Your task to perform on an android device: add a contact Image 0: 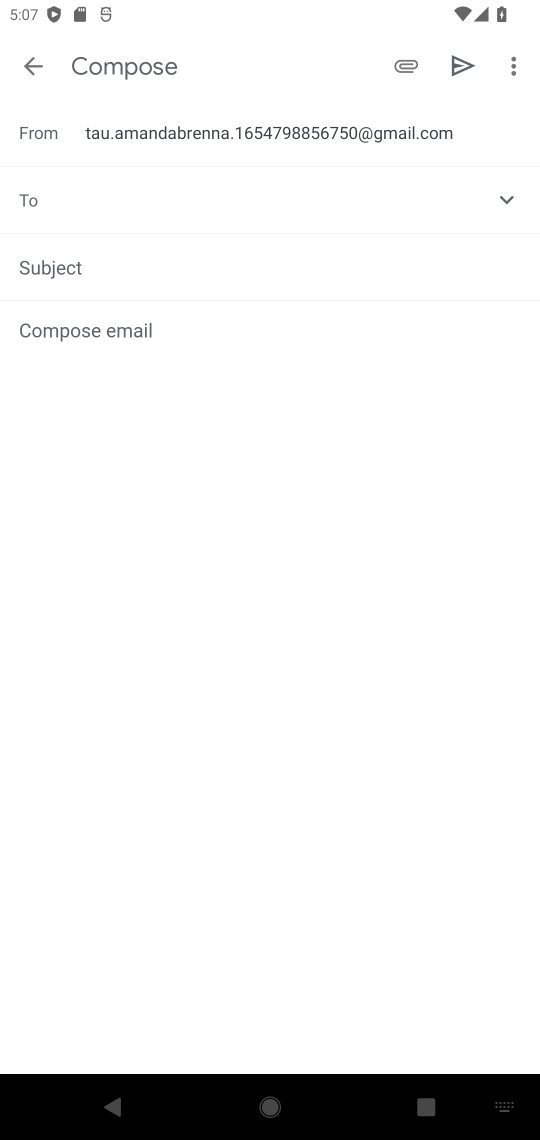
Step 0: click (56, 68)
Your task to perform on an android device: add a contact Image 1: 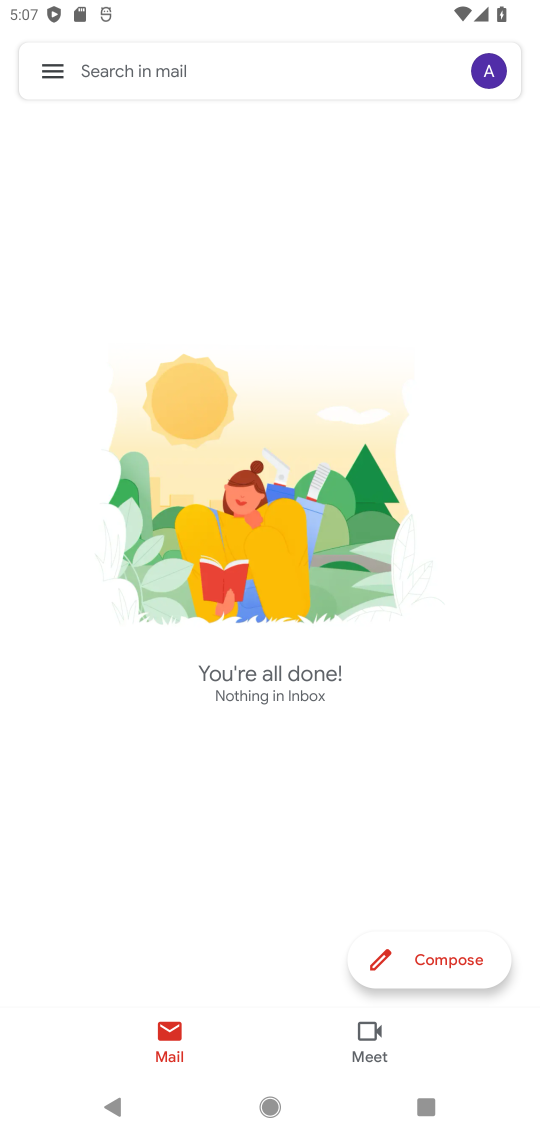
Step 1: press back button
Your task to perform on an android device: add a contact Image 2: 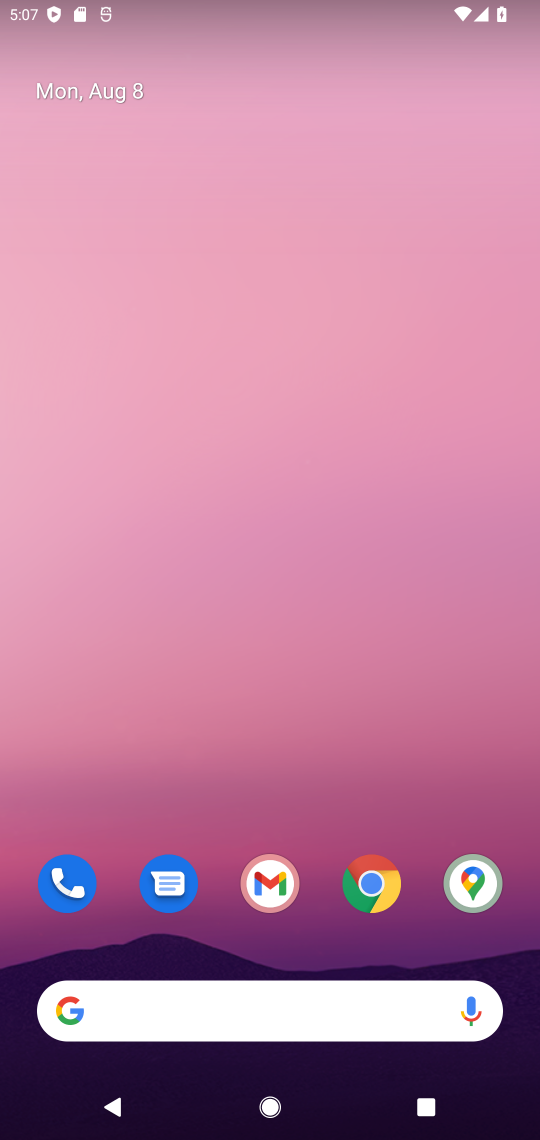
Step 2: drag from (342, 1001) to (164, 17)
Your task to perform on an android device: add a contact Image 3: 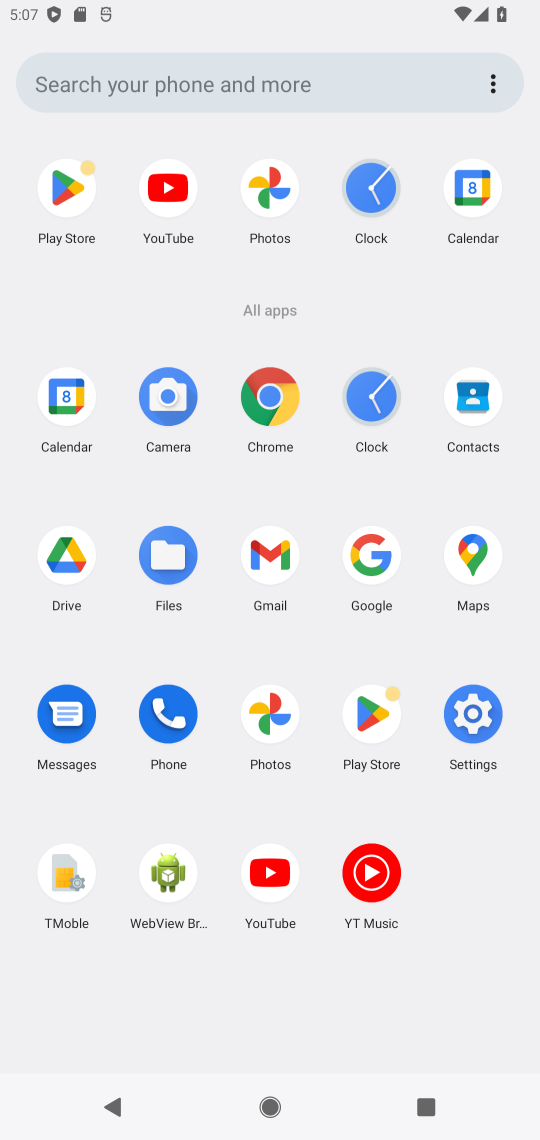
Step 3: drag from (278, 141) to (316, 271)
Your task to perform on an android device: add a contact Image 4: 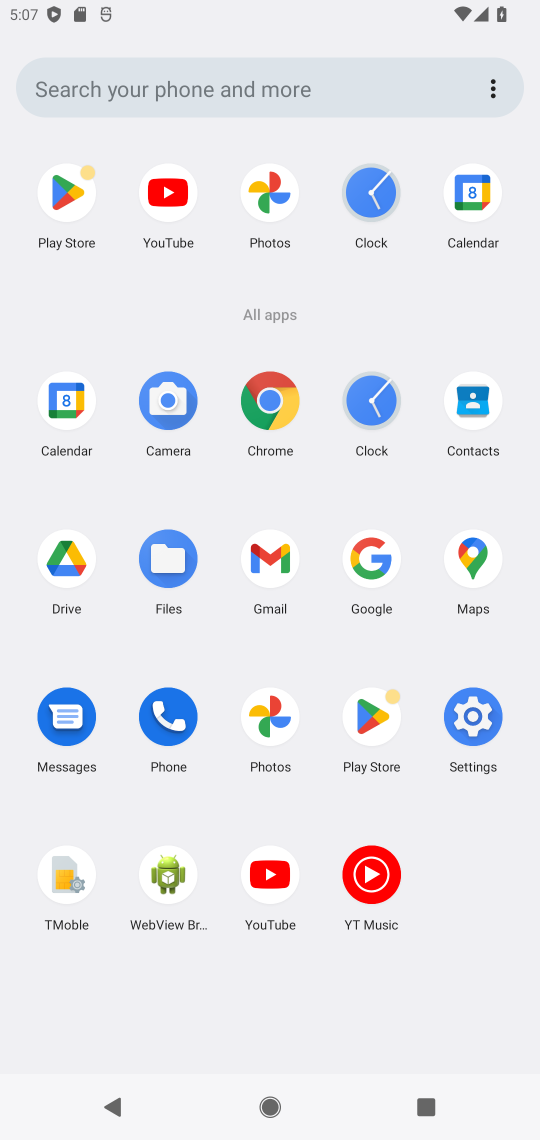
Step 4: click (76, 400)
Your task to perform on an android device: add a contact Image 5: 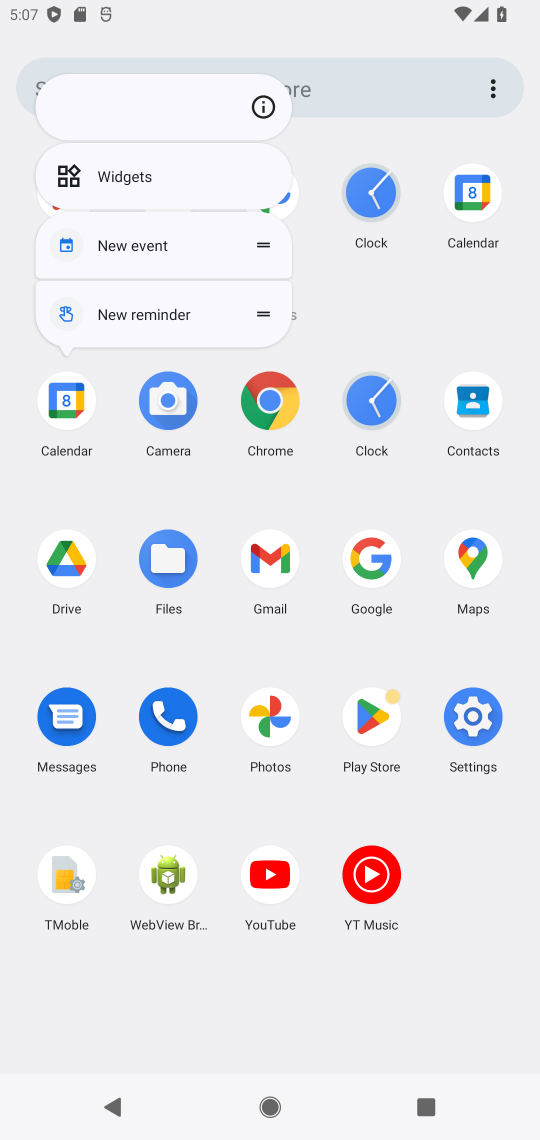
Step 5: click (191, 444)
Your task to perform on an android device: add a contact Image 6: 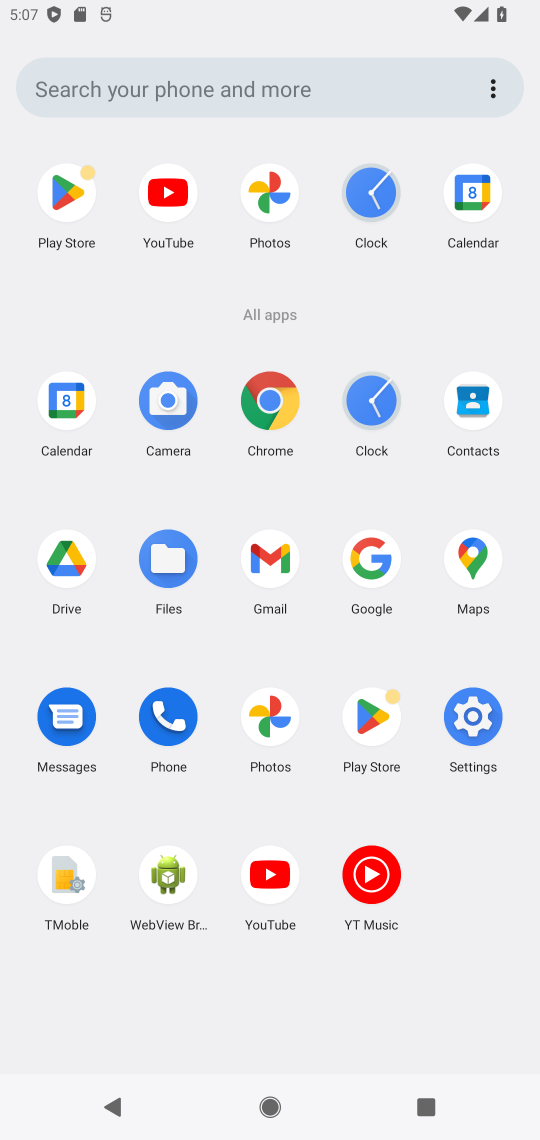
Step 6: click (481, 389)
Your task to perform on an android device: add a contact Image 7: 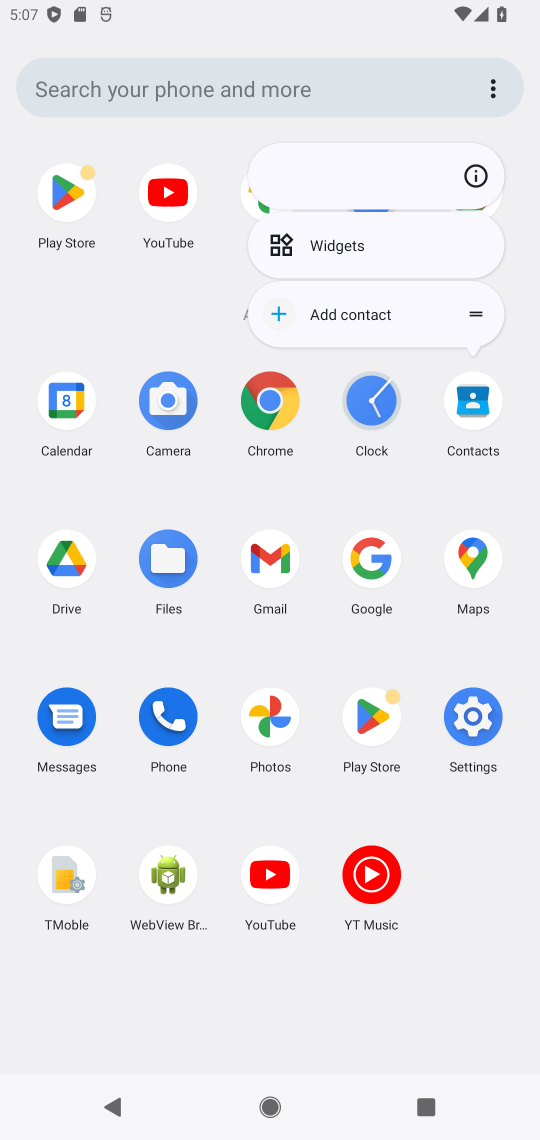
Step 7: click (458, 406)
Your task to perform on an android device: add a contact Image 8: 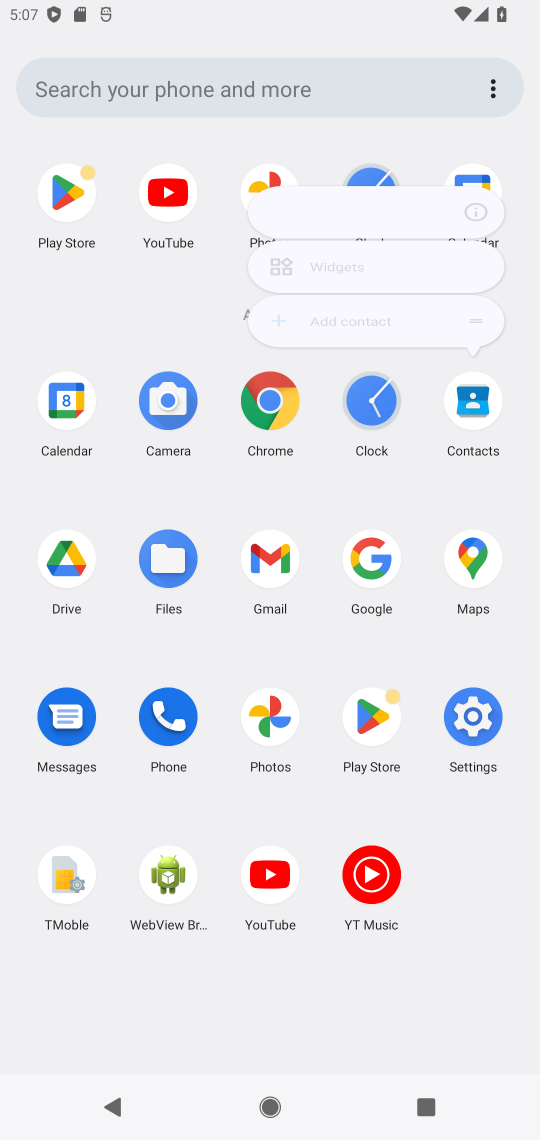
Step 8: click (461, 409)
Your task to perform on an android device: add a contact Image 9: 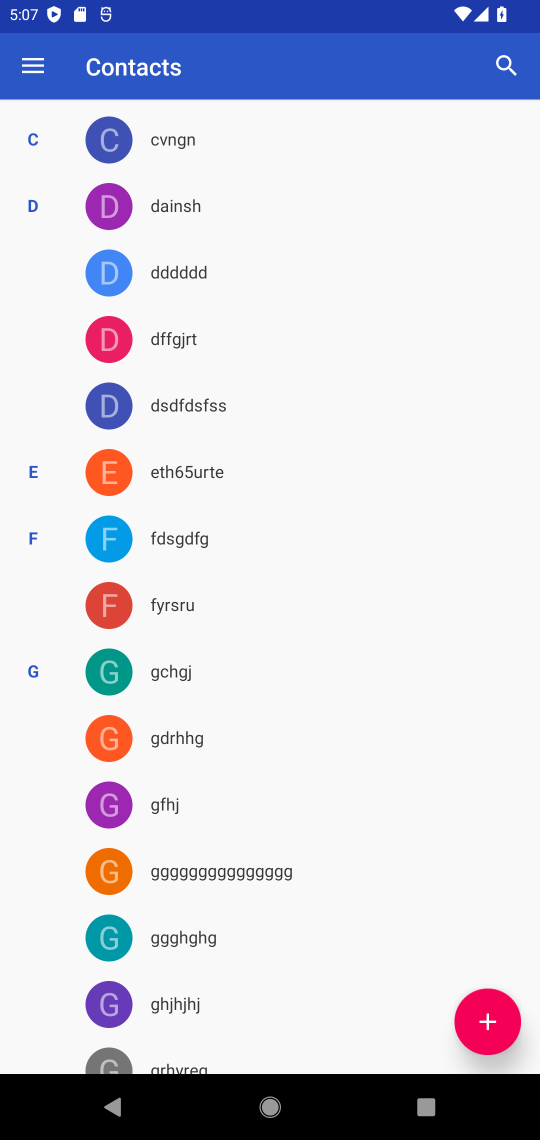
Step 9: click (493, 1011)
Your task to perform on an android device: add a contact Image 10: 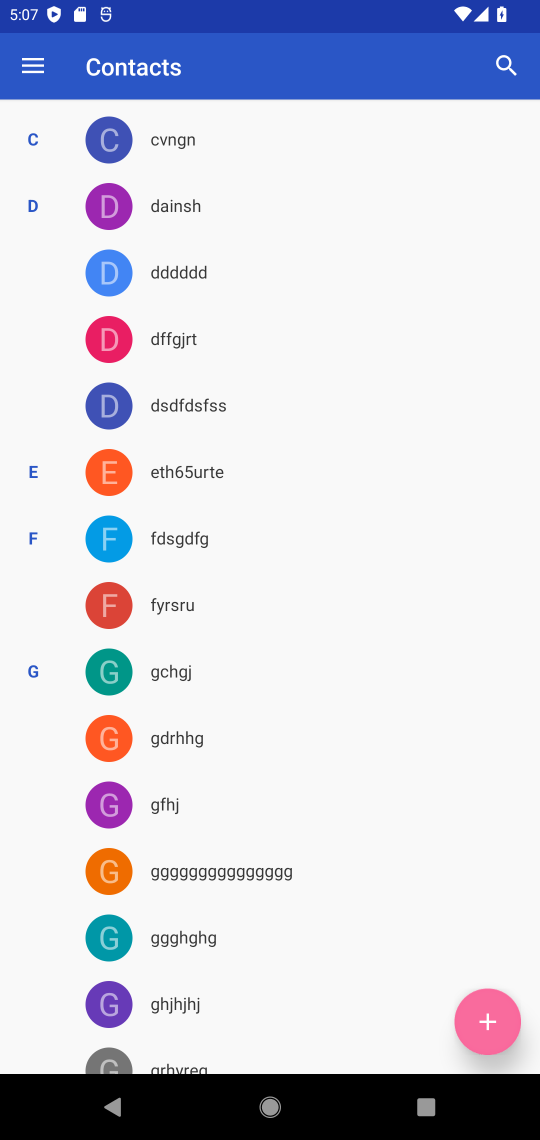
Step 10: click (484, 1025)
Your task to perform on an android device: add a contact Image 11: 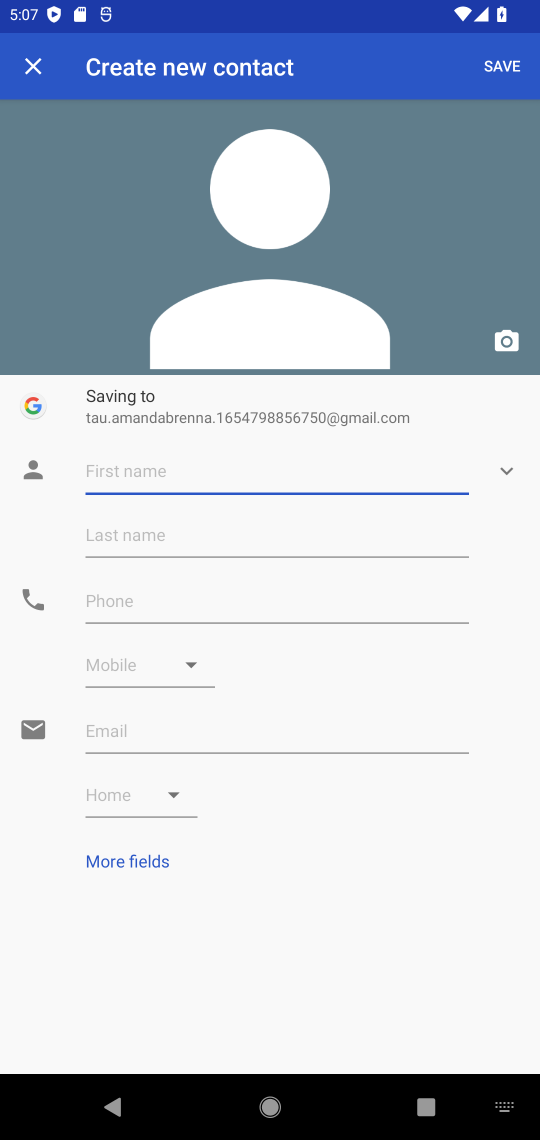
Step 11: click (483, 1026)
Your task to perform on an android device: add a contact Image 12: 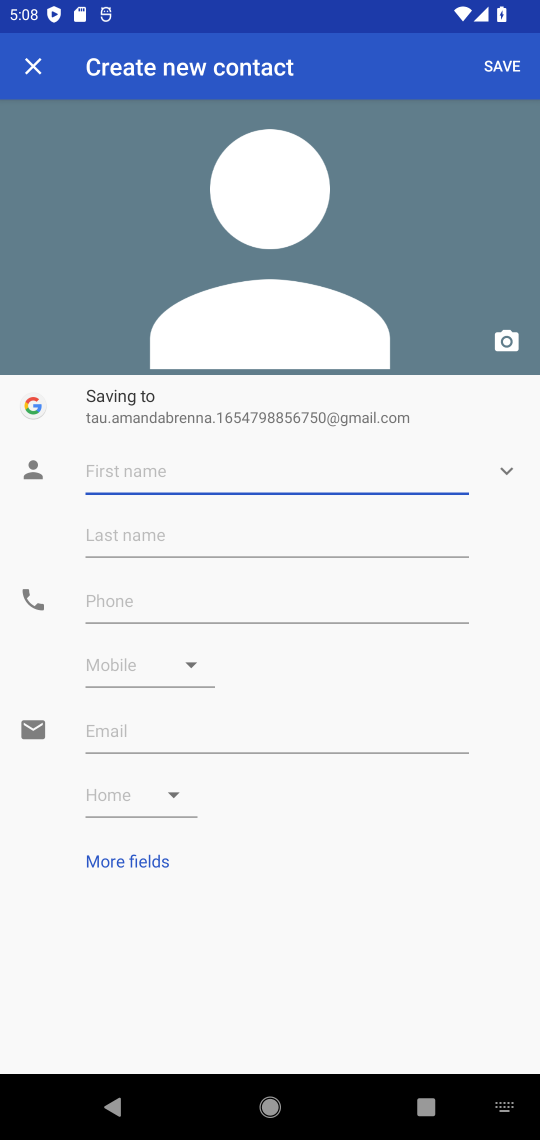
Step 12: type "vffbffbg"
Your task to perform on an android device: add a contact Image 13: 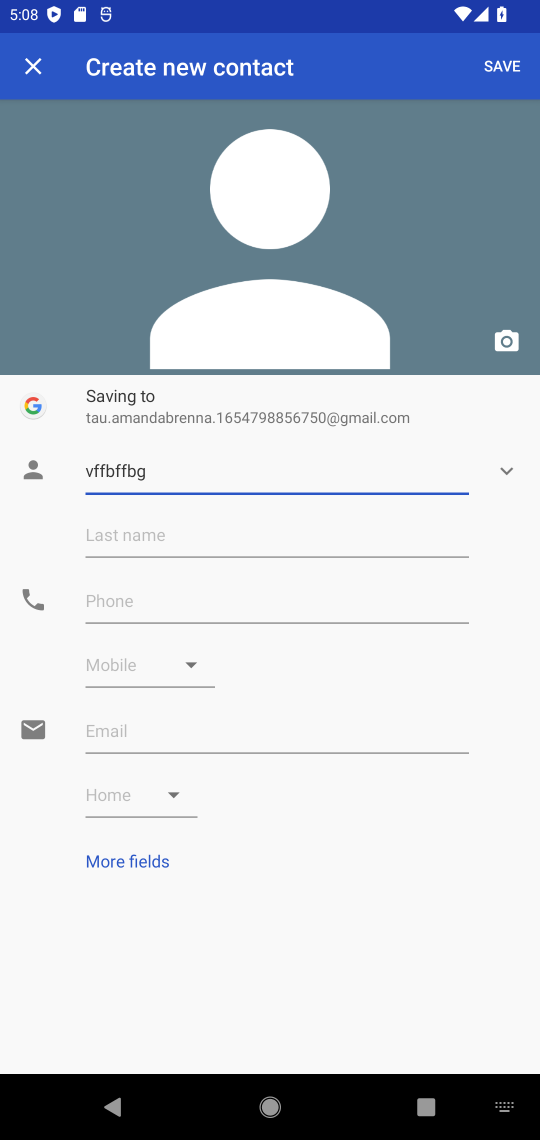
Step 13: click (99, 597)
Your task to perform on an android device: add a contact Image 14: 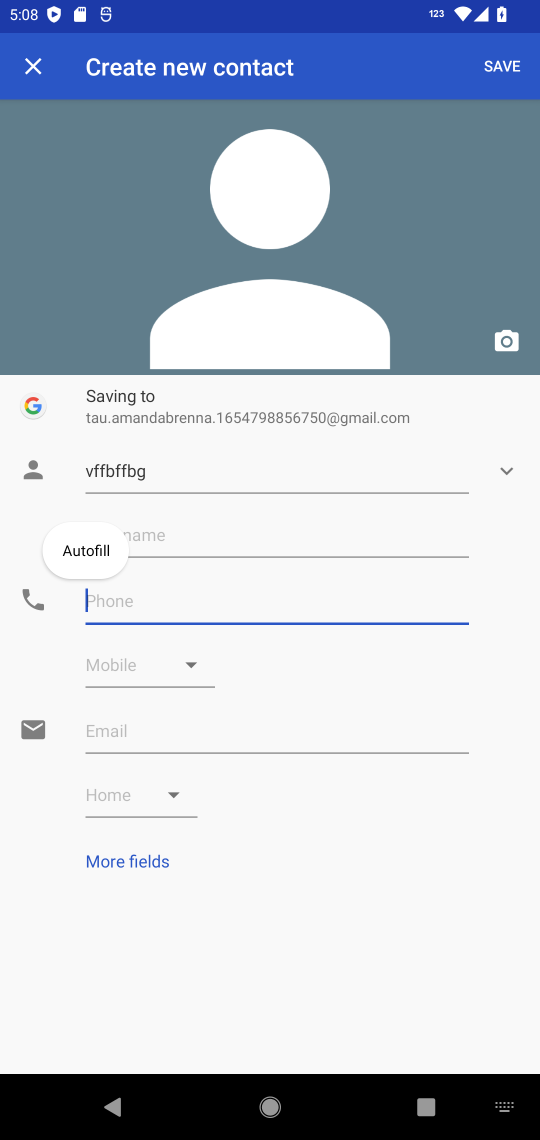
Step 14: type "778678687867888"
Your task to perform on an android device: add a contact Image 15: 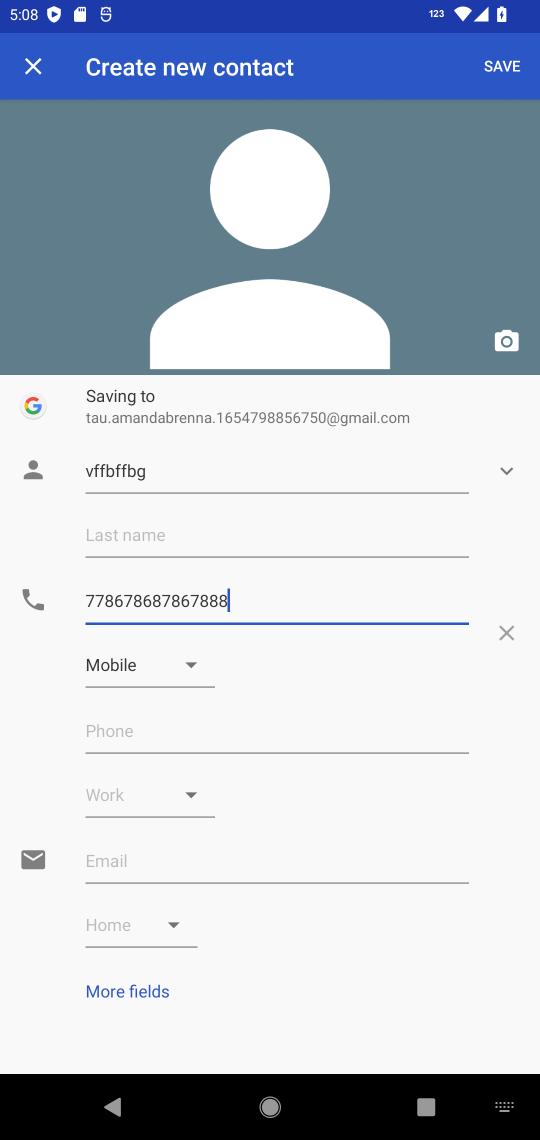
Step 15: click (497, 79)
Your task to perform on an android device: add a contact Image 16: 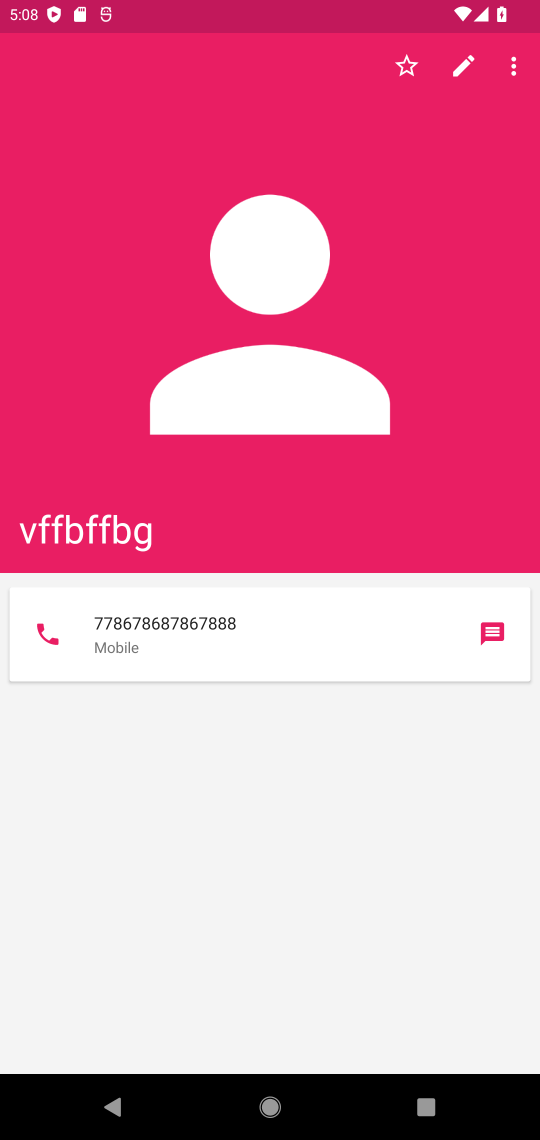
Step 16: task complete